Your task to perform on an android device: Open Google Image 0: 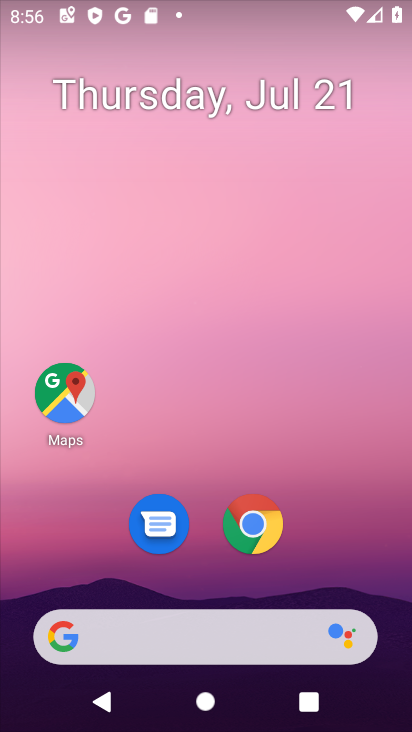
Step 0: press home button
Your task to perform on an android device: Open Google Image 1: 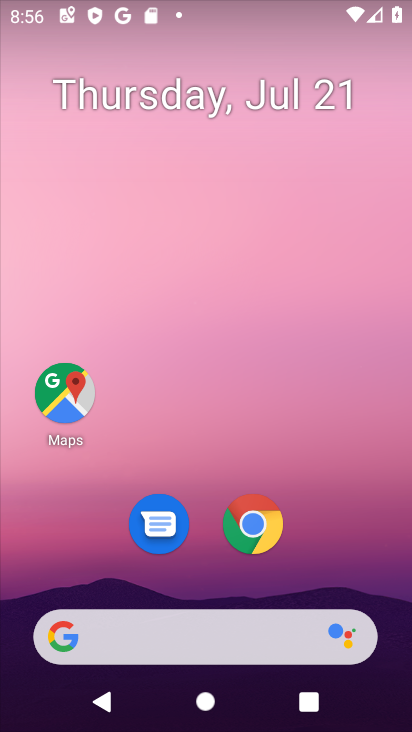
Step 1: drag from (194, 622) to (323, 48)
Your task to perform on an android device: Open Google Image 2: 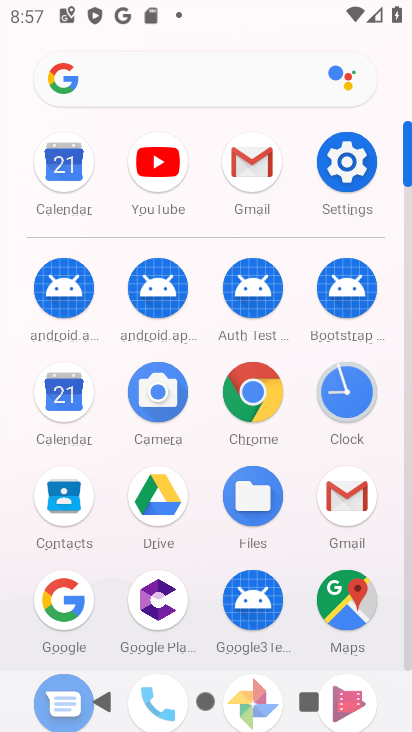
Step 2: click (71, 606)
Your task to perform on an android device: Open Google Image 3: 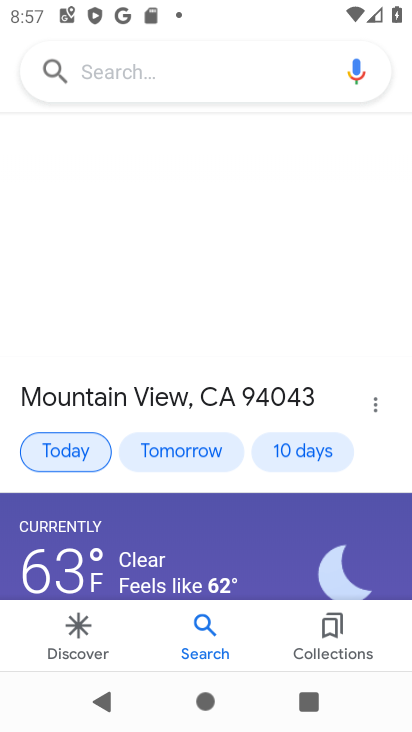
Step 3: task complete